Your task to perform on an android device: Go to sound settings Image 0: 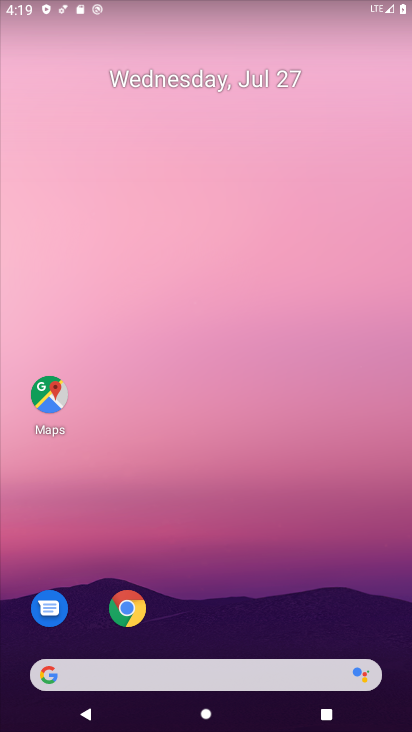
Step 0: drag from (287, 627) to (289, 230)
Your task to perform on an android device: Go to sound settings Image 1: 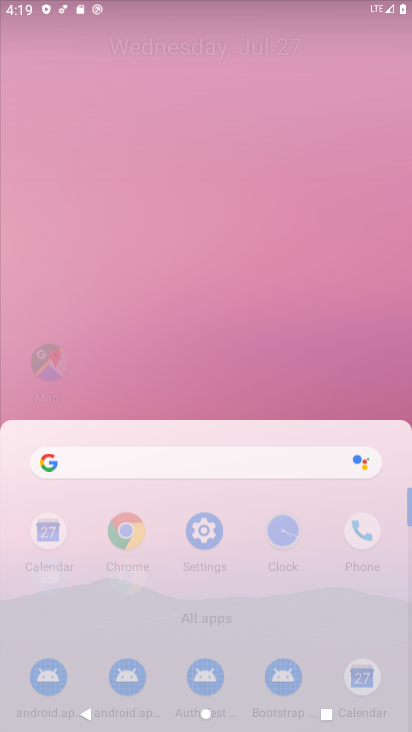
Step 1: drag from (279, 532) to (279, 234)
Your task to perform on an android device: Go to sound settings Image 2: 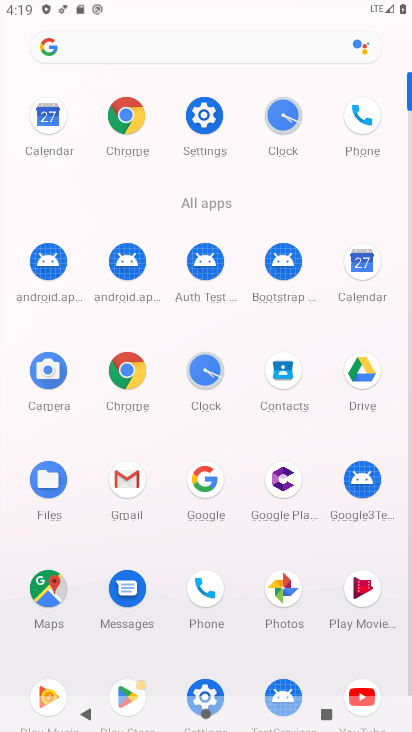
Step 2: click (197, 116)
Your task to perform on an android device: Go to sound settings Image 3: 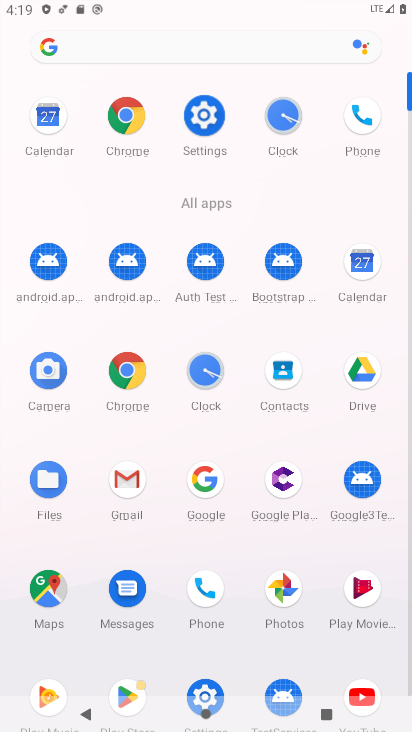
Step 3: click (200, 115)
Your task to perform on an android device: Go to sound settings Image 4: 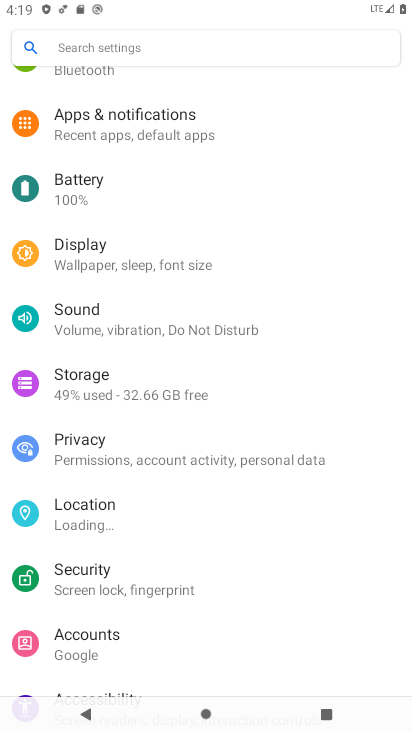
Step 4: click (91, 329)
Your task to perform on an android device: Go to sound settings Image 5: 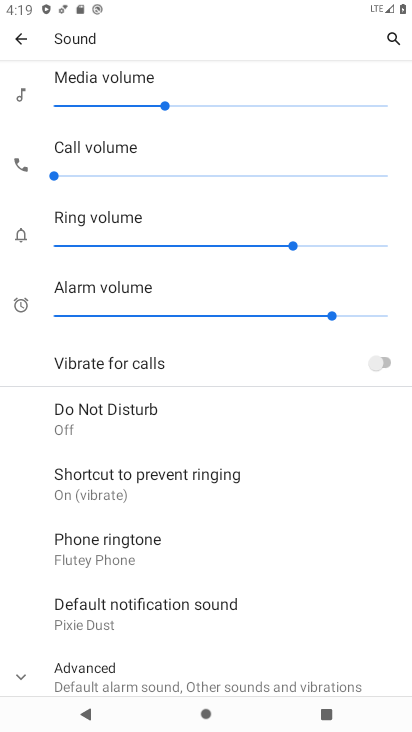
Step 5: task complete